Your task to perform on an android device: Go to location settings Image 0: 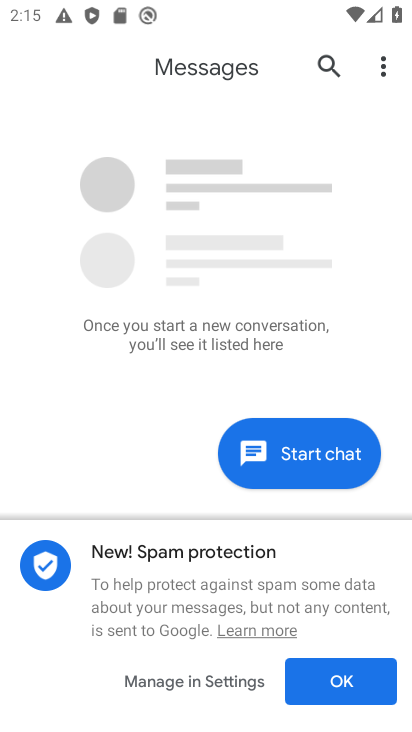
Step 0: press home button
Your task to perform on an android device: Go to location settings Image 1: 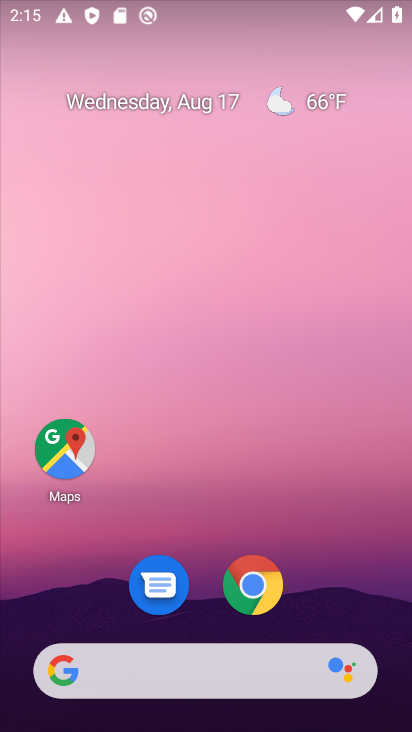
Step 1: drag from (224, 504) to (253, 78)
Your task to perform on an android device: Go to location settings Image 2: 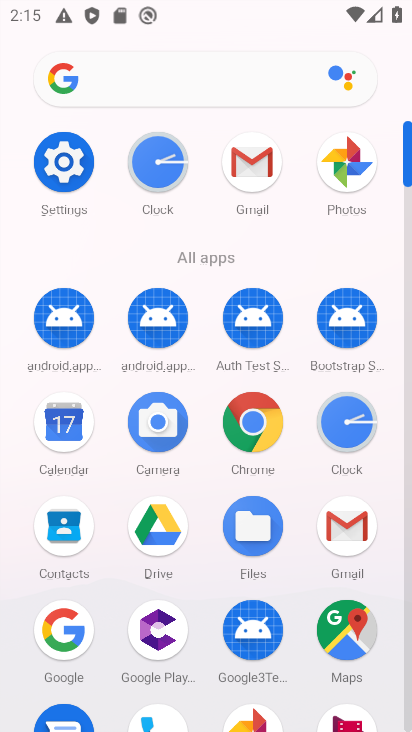
Step 2: click (58, 159)
Your task to perform on an android device: Go to location settings Image 3: 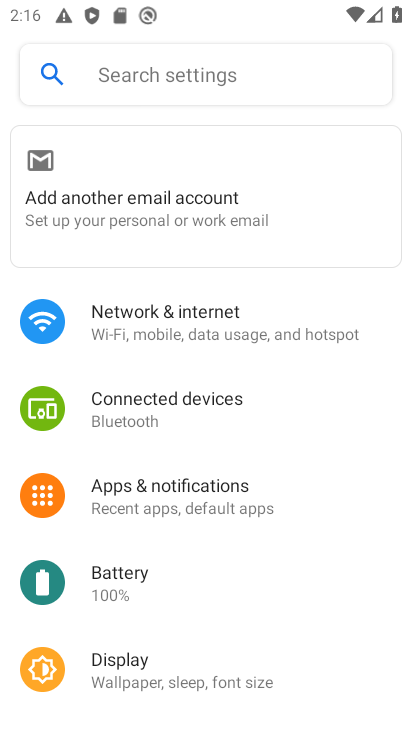
Step 3: drag from (194, 580) to (215, 1)
Your task to perform on an android device: Go to location settings Image 4: 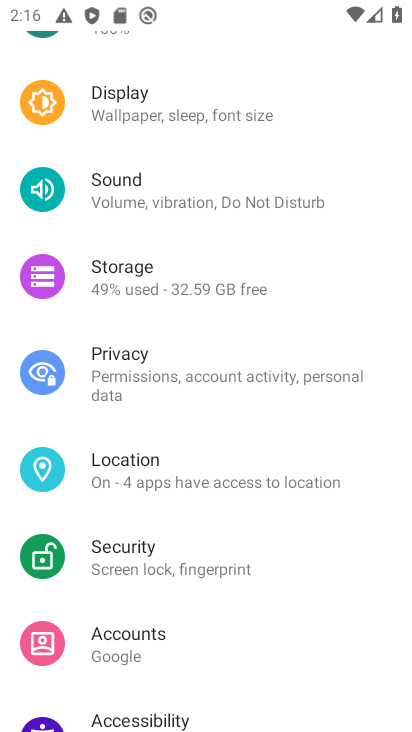
Step 4: click (223, 469)
Your task to perform on an android device: Go to location settings Image 5: 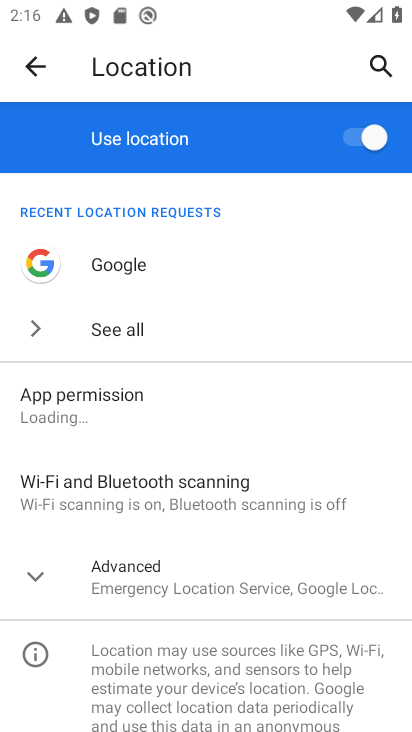
Step 5: task complete